Your task to perform on an android device: toggle improve location accuracy Image 0: 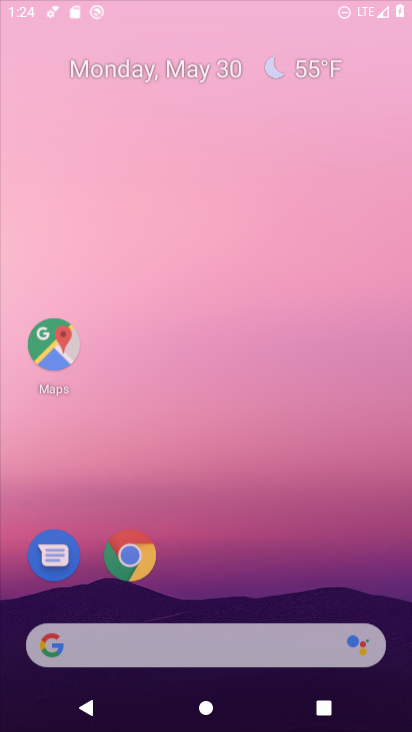
Step 0: press home button
Your task to perform on an android device: toggle improve location accuracy Image 1: 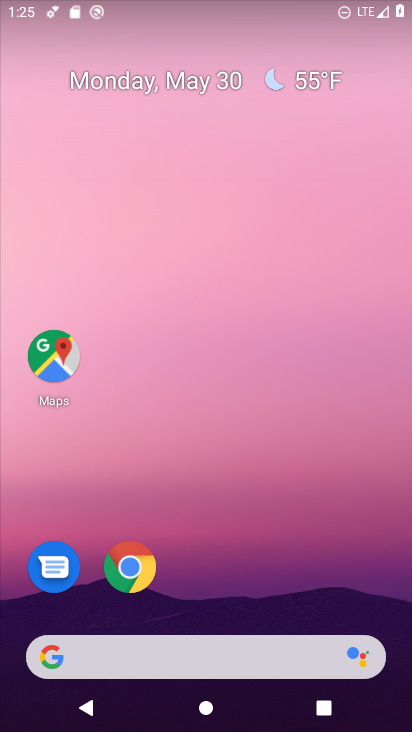
Step 1: drag from (234, 615) to (274, 69)
Your task to perform on an android device: toggle improve location accuracy Image 2: 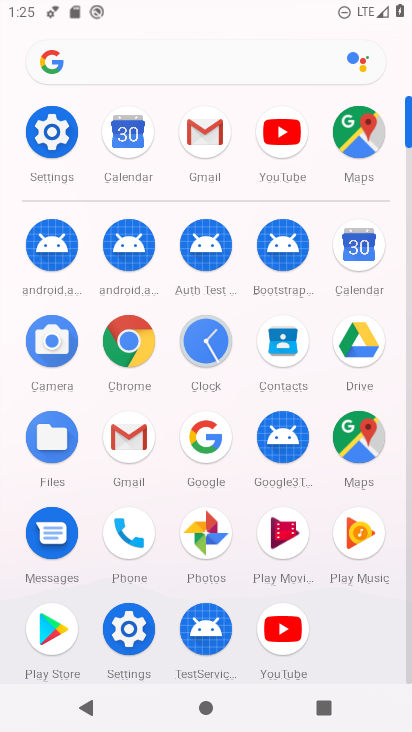
Step 2: click (134, 622)
Your task to perform on an android device: toggle improve location accuracy Image 3: 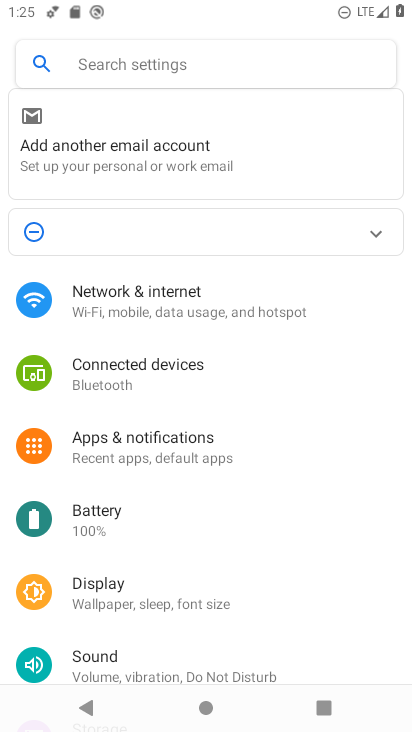
Step 3: drag from (207, 657) to (203, 170)
Your task to perform on an android device: toggle improve location accuracy Image 4: 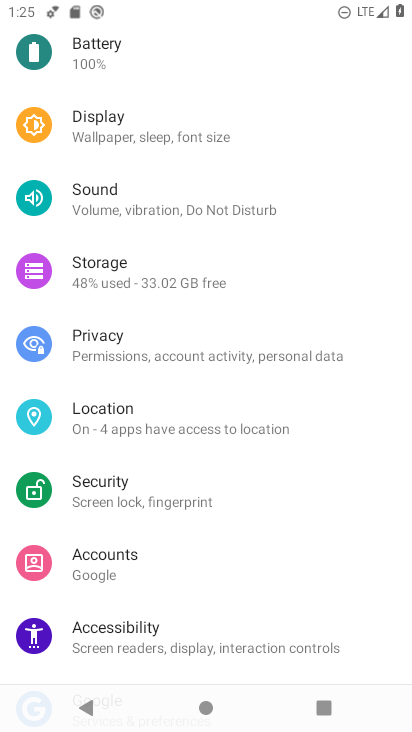
Step 4: click (166, 489)
Your task to perform on an android device: toggle improve location accuracy Image 5: 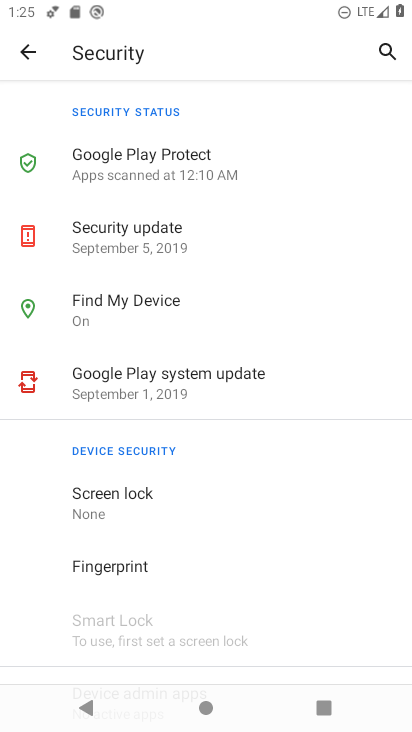
Step 5: click (26, 46)
Your task to perform on an android device: toggle improve location accuracy Image 6: 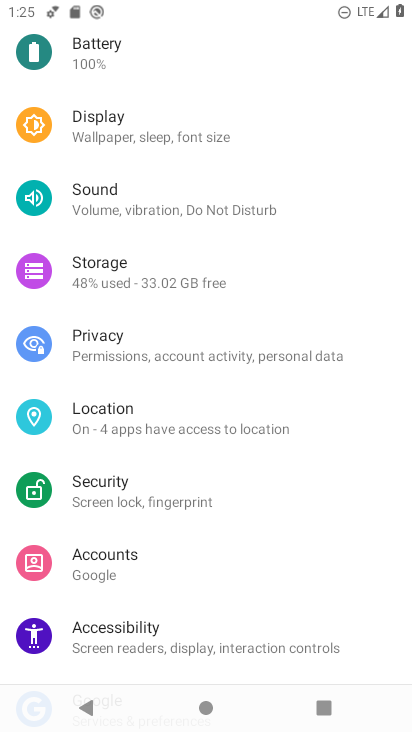
Step 6: click (135, 419)
Your task to perform on an android device: toggle improve location accuracy Image 7: 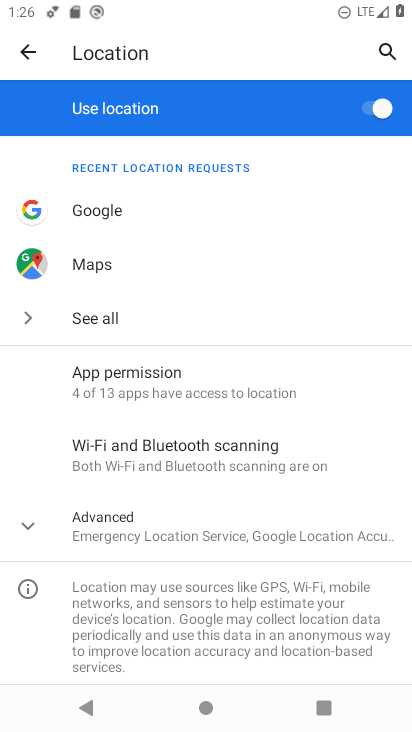
Step 7: click (35, 518)
Your task to perform on an android device: toggle improve location accuracy Image 8: 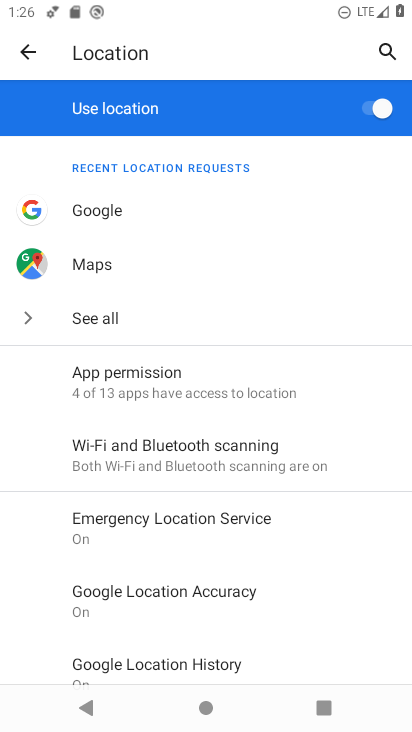
Step 8: click (150, 594)
Your task to perform on an android device: toggle improve location accuracy Image 9: 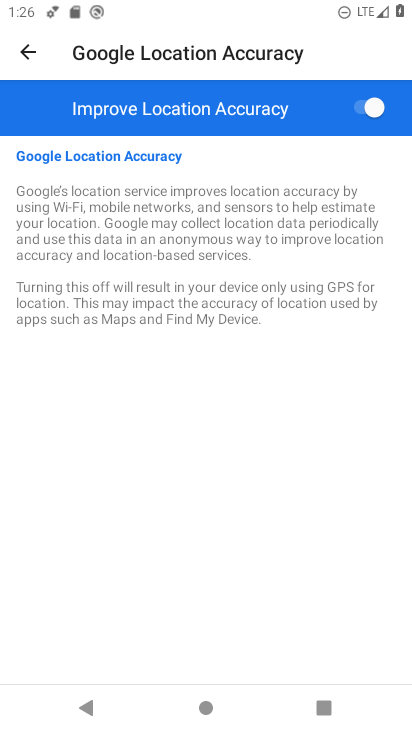
Step 9: click (376, 101)
Your task to perform on an android device: toggle improve location accuracy Image 10: 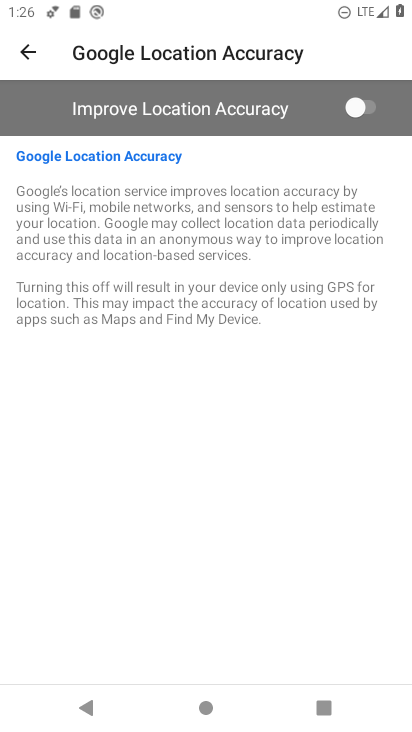
Step 10: task complete